Your task to perform on an android device: turn on showing notifications on the lock screen Image 0: 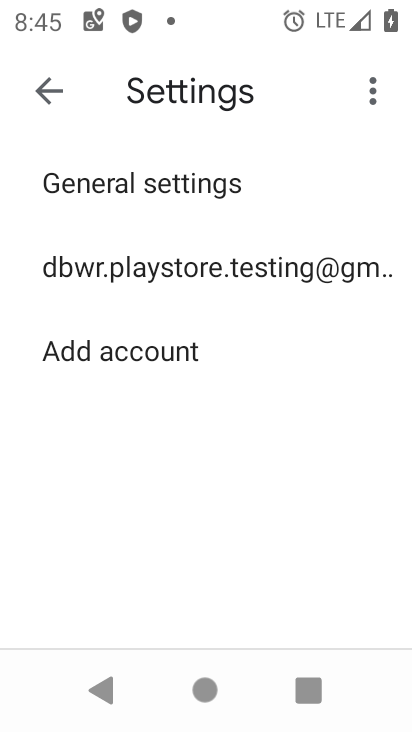
Step 0: press home button
Your task to perform on an android device: turn on showing notifications on the lock screen Image 1: 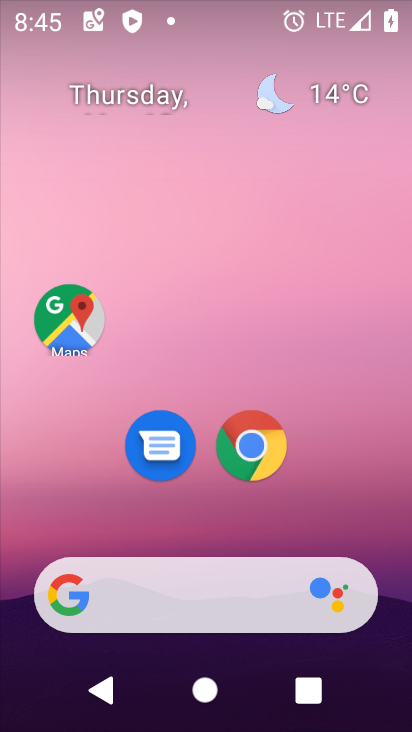
Step 1: drag from (207, 720) to (210, 107)
Your task to perform on an android device: turn on showing notifications on the lock screen Image 2: 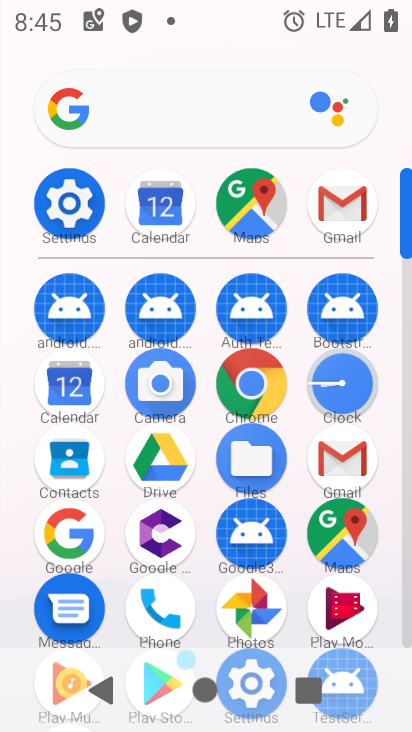
Step 2: click (67, 203)
Your task to perform on an android device: turn on showing notifications on the lock screen Image 3: 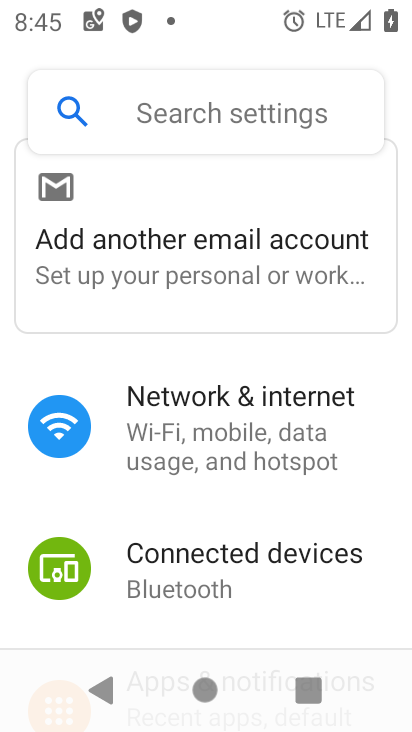
Step 3: drag from (208, 617) to (211, 245)
Your task to perform on an android device: turn on showing notifications on the lock screen Image 4: 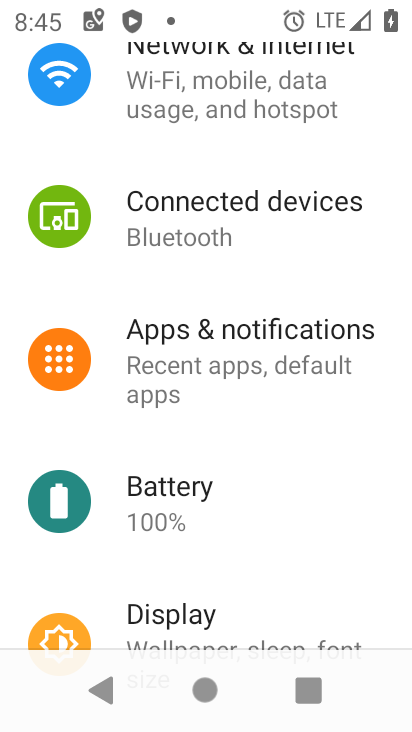
Step 4: click (212, 356)
Your task to perform on an android device: turn on showing notifications on the lock screen Image 5: 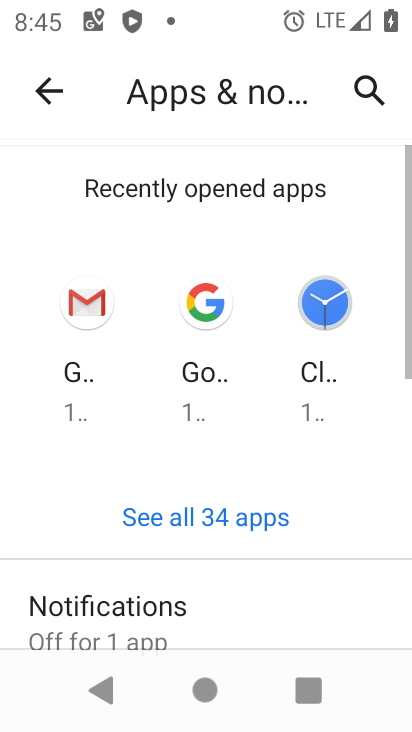
Step 5: drag from (242, 626) to (242, 265)
Your task to perform on an android device: turn on showing notifications on the lock screen Image 6: 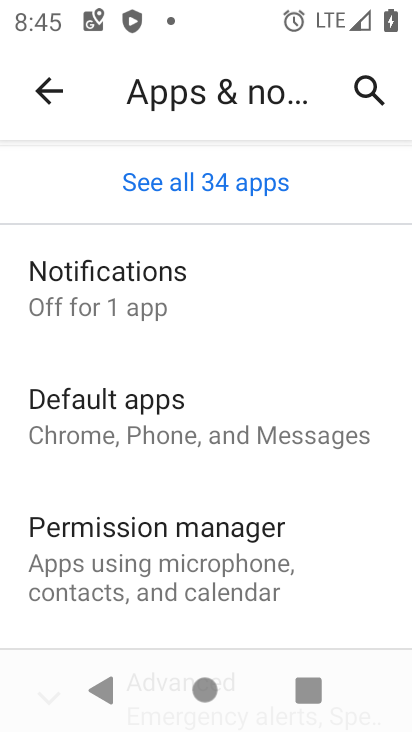
Step 6: click (110, 304)
Your task to perform on an android device: turn on showing notifications on the lock screen Image 7: 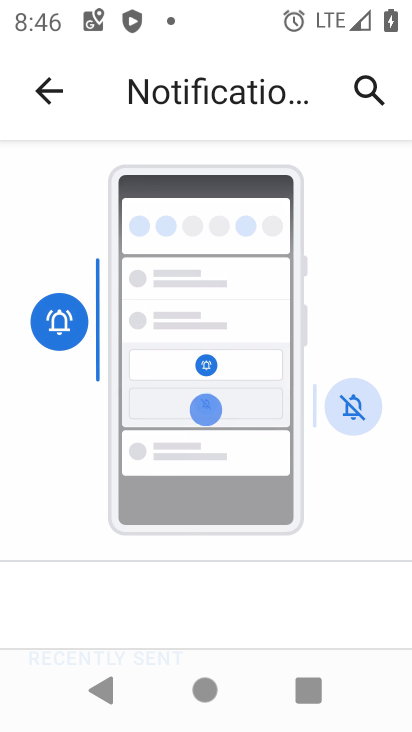
Step 7: task complete